Your task to perform on an android device: open app "Pluto TV - Live TV and Movies" (install if not already installed) Image 0: 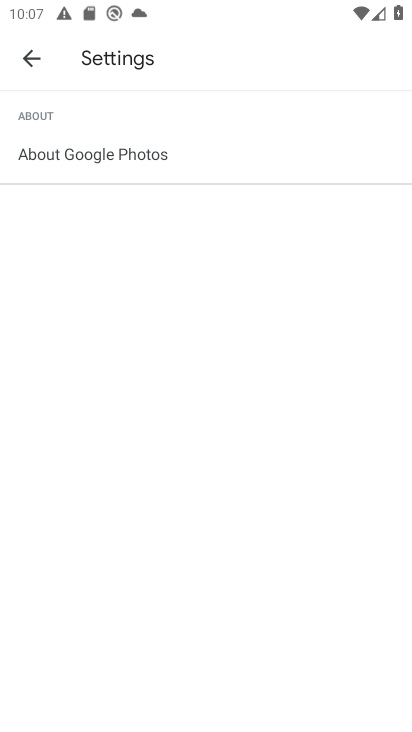
Step 0: press home button
Your task to perform on an android device: open app "Pluto TV - Live TV and Movies" (install if not already installed) Image 1: 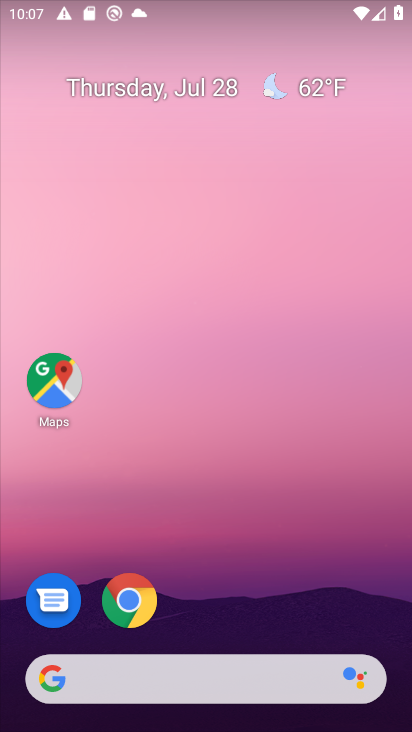
Step 1: drag from (252, 635) to (258, 5)
Your task to perform on an android device: open app "Pluto TV - Live TV and Movies" (install if not already installed) Image 2: 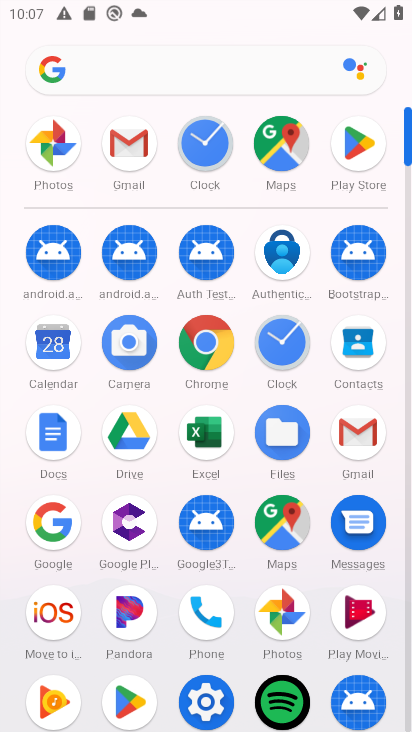
Step 2: click (355, 139)
Your task to perform on an android device: open app "Pluto TV - Live TV and Movies" (install if not already installed) Image 3: 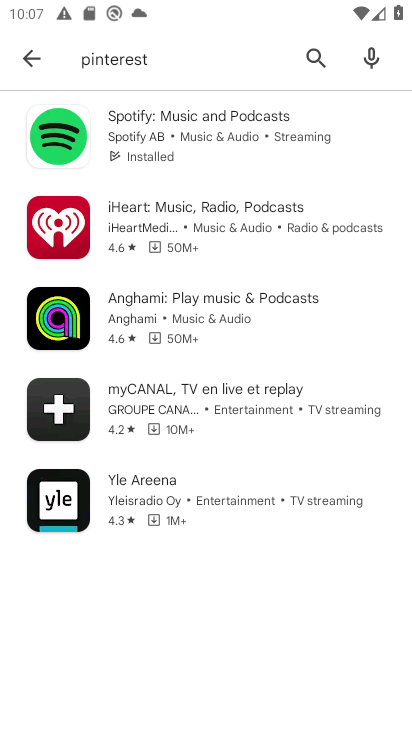
Step 3: click (315, 60)
Your task to perform on an android device: open app "Pluto TV - Live TV and Movies" (install if not already installed) Image 4: 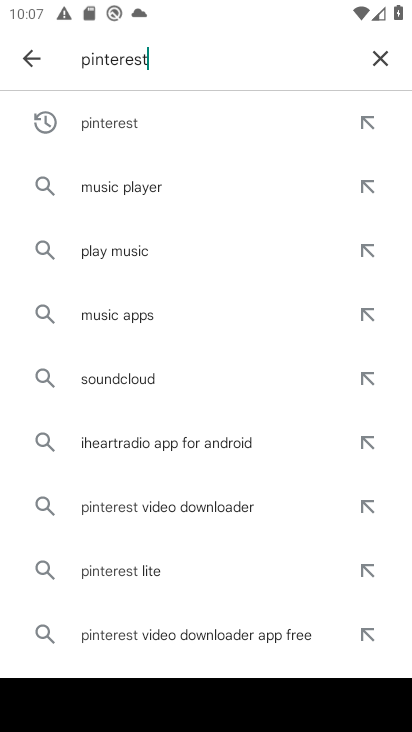
Step 4: click (389, 65)
Your task to perform on an android device: open app "Pluto TV - Live TV and Movies" (install if not already installed) Image 5: 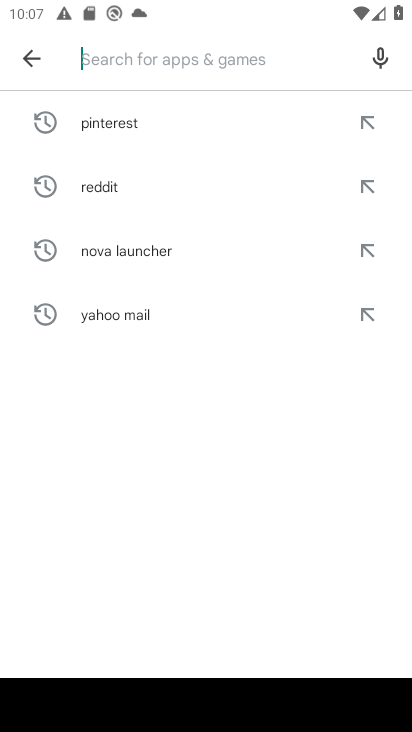
Step 5: type "Pluto TV - Live TV and Movies"
Your task to perform on an android device: open app "Pluto TV - Live TV and Movies" (install if not already installed) Image 6: 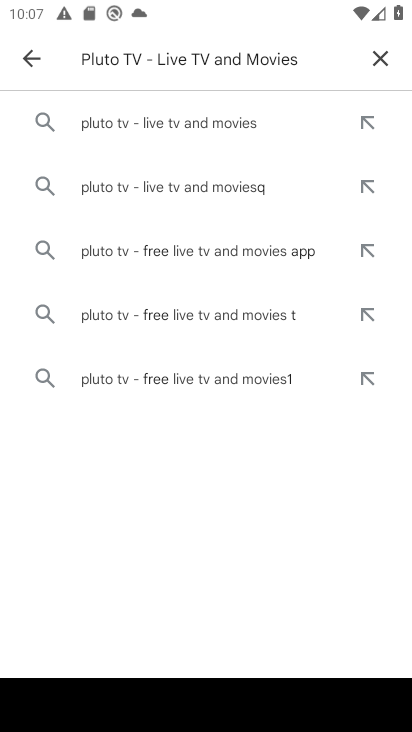
Step 6: click (175, 131)
Your task to perform on an android device: open app "Pluto TV - Live TV and Movies" (install if not already installed) Image 7: 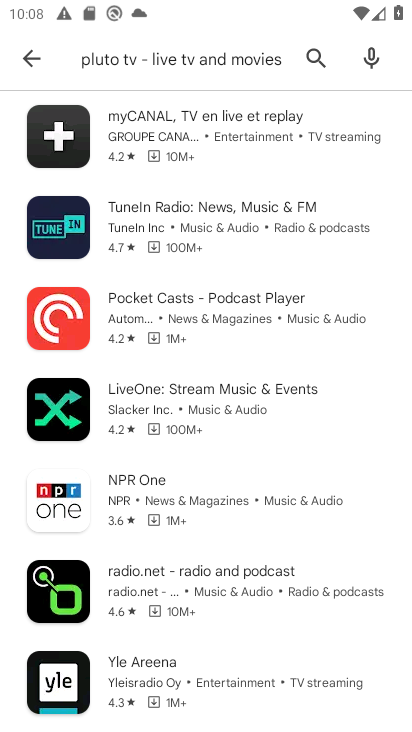
Step 7: task complete